Your task to perform on an android device: toggle priority inbox in the gmail app Image 0: 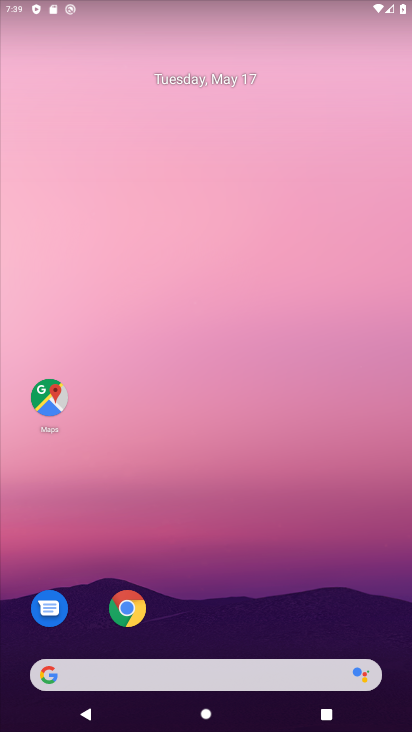
Step 0: drag from (197, 613) to (268, 53)
Your task to perform on an android device: toggle priority inbox in the gmail app Image 1: 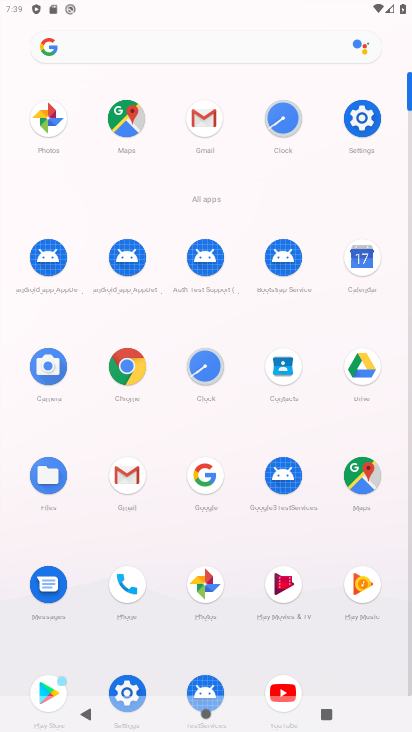
Step 1: click (128, 476)
Your task to perform on an android device: toggle priority inbox in the gmail app Image 2: 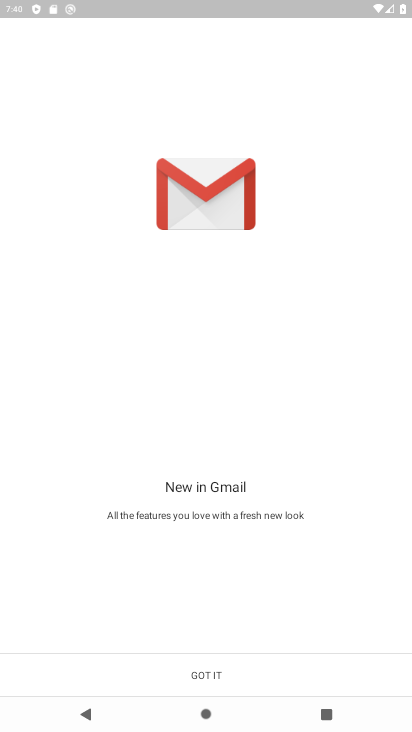
Step 2: click (226, 673)
Your task to perform on an android device: toggle priority inbox in the gmail app Image 3: 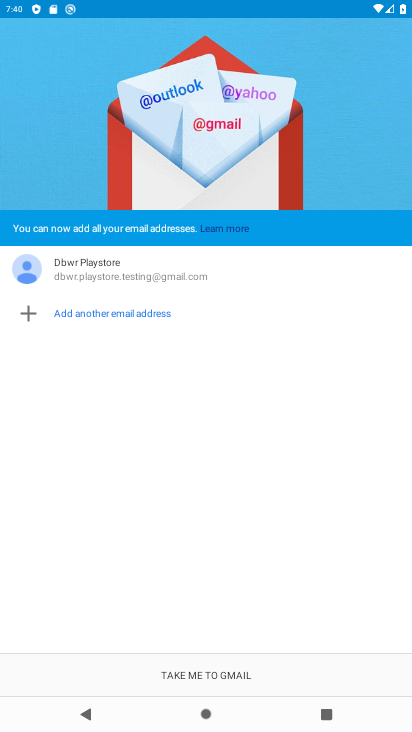
Step 3: click (226, 673)
Your task to perform on an android device: toggle priority inbox in the gmail app Image 4: 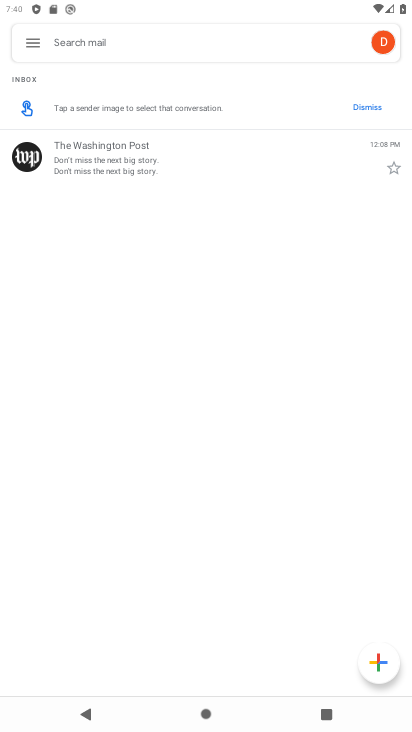
Step 4: click (33, 43)
Your task to perform on an android device: toggle priority inbox in the gmail app Image 5: 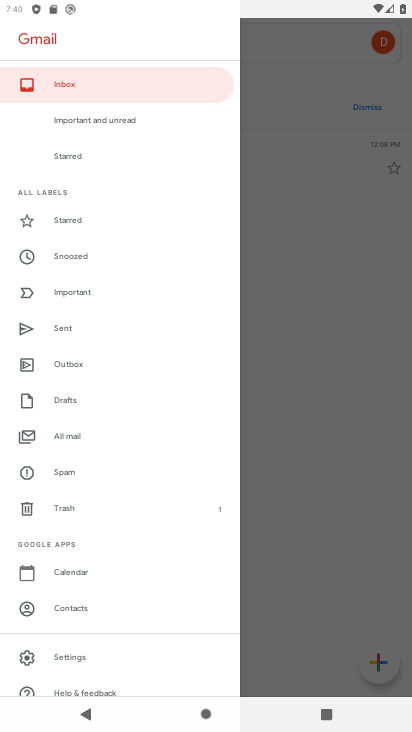
Step 5: drag from (61, 587) to (164, 285)
Your task to perform on an android device: toggle priority inbox in the gmail app Image 6: 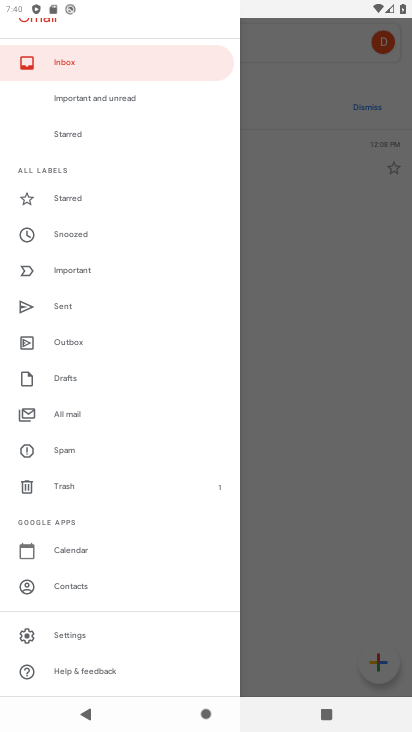
Step 6: click (80, 637)
Your task to perform on an android device: toggle priority inbox in the gmail app Image 7: 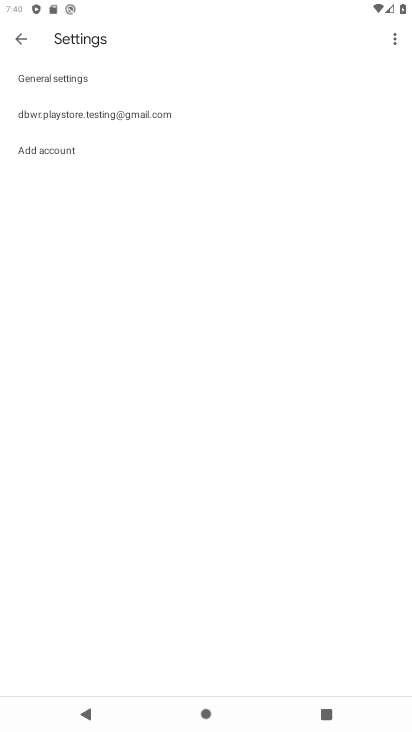
Step 7: click (107, 108)
Your task to perform on an android device: toggle priority inbox in the gmail app Image 8: 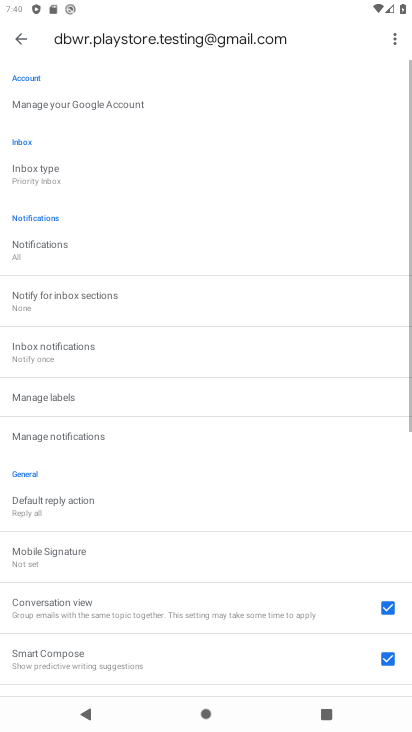
Step 8: click (52, 176)
Your task to perform on an android device: toggle priority inbox in the gmail app Image 9: 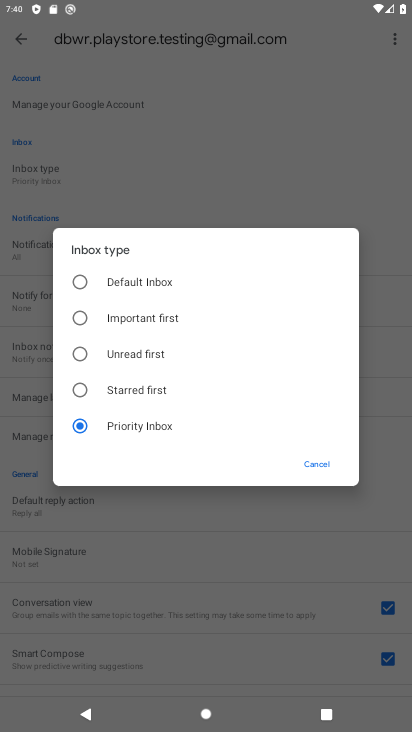
Step 9: click (72, 282)
Your task to perform on an android device: toggle priority inbox in the gmail app Image 10: 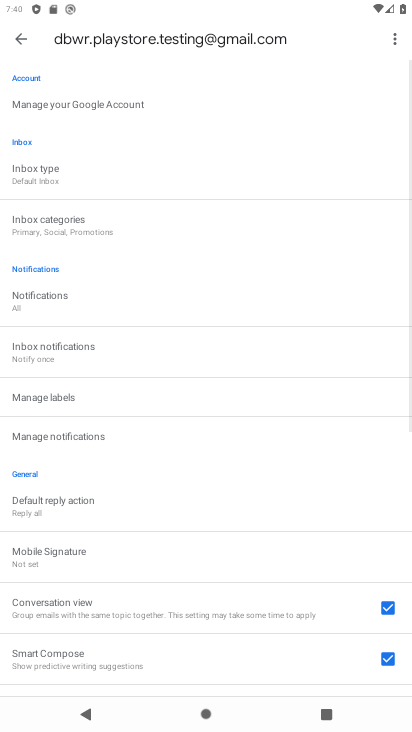
Step 10: task complete